Your task to perform on an android device: turn on bluetooth scan Image 0: 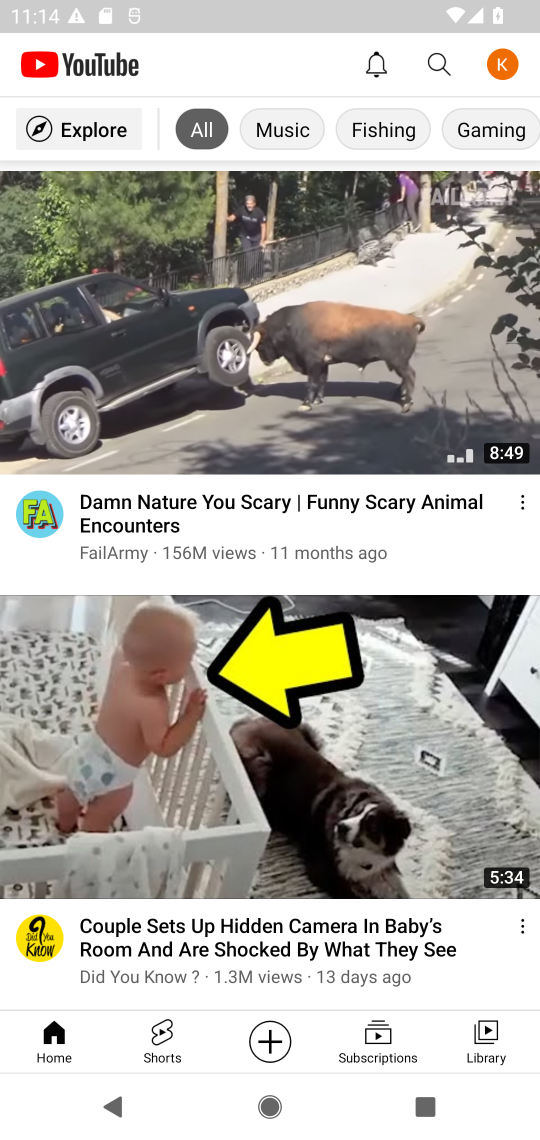
Step 0: press home button
Your task to perform on an android device: turn on bluetooth scan Image 1: 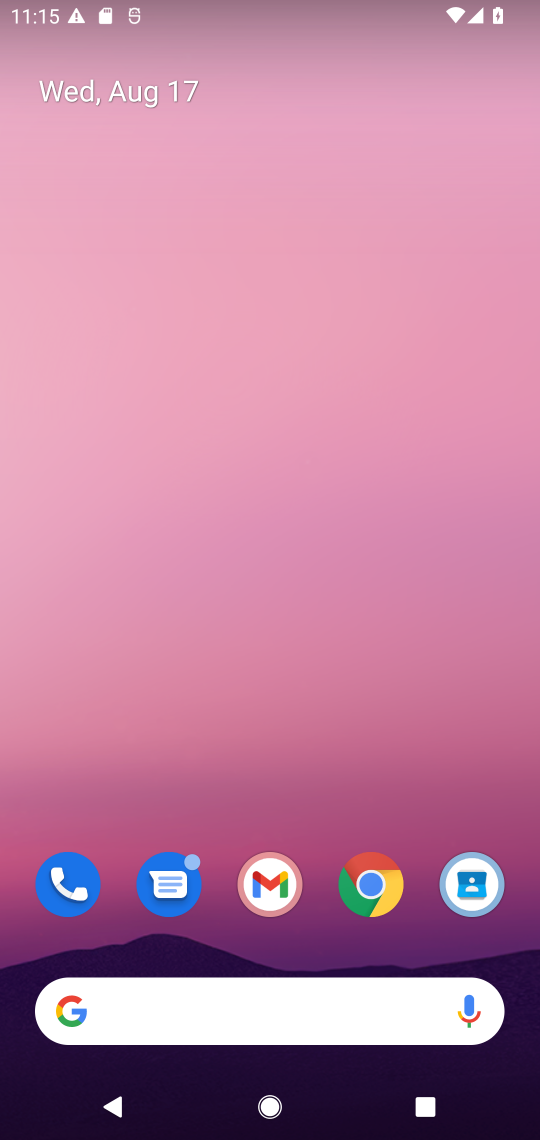
Step 1: drag from (318, 936) to (247, 155)
Your task to perform on an android device: turn on bluetooth scan Image 2: 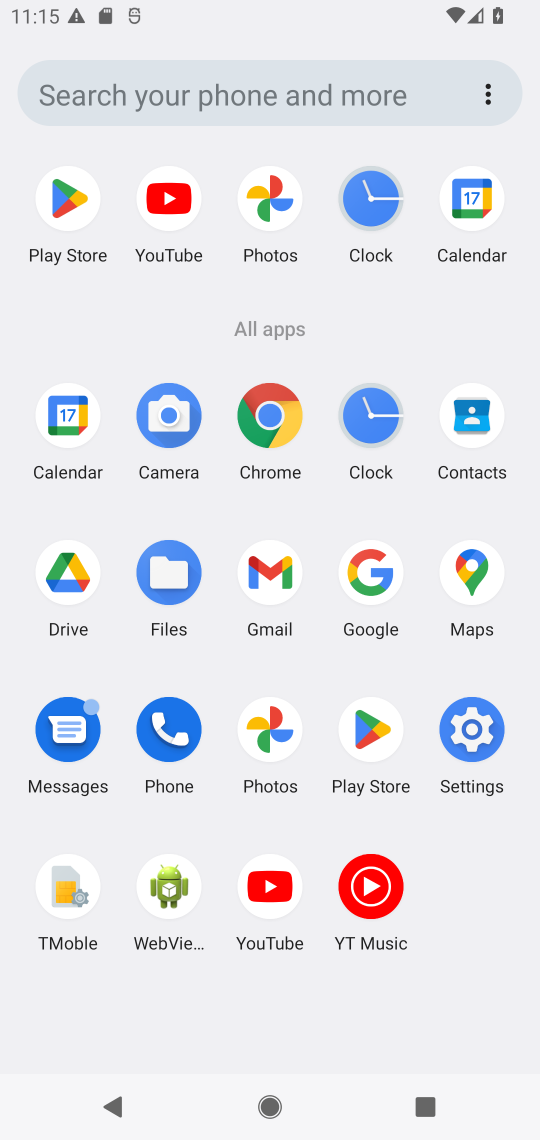
Step 2: click (470, 753)
Your task to perform on an android device: turn on bluetooth scan Image 3: 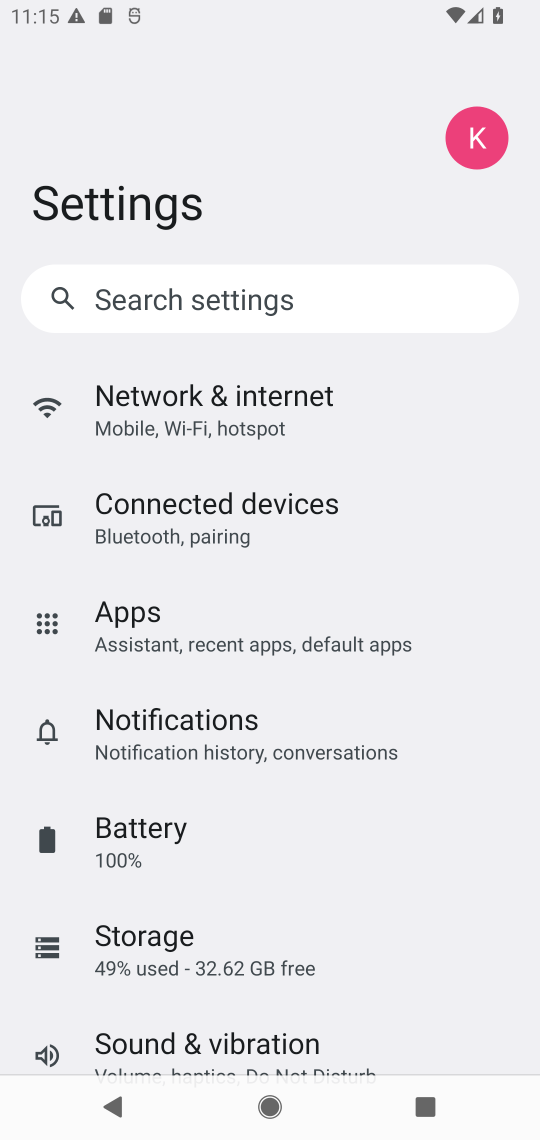
Step 3: drag from (366, 1012) to (233, 158)
Your task to perform on an android device: turn on bluetooth scan Image 4: 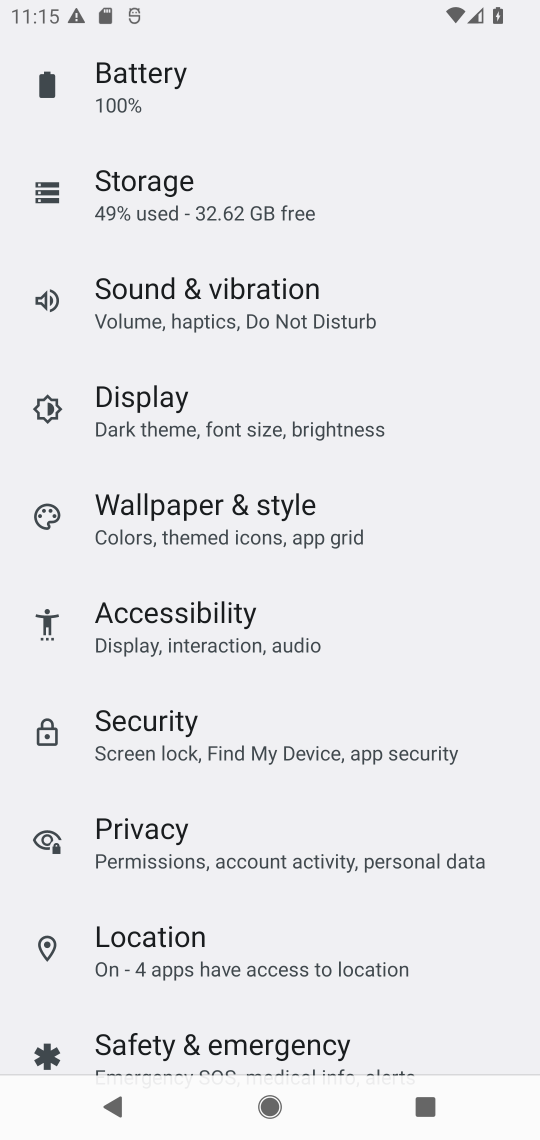
Step 4: click (220, 963)
Your task to perform on an android device: turn on bluetooth scan Image 5: 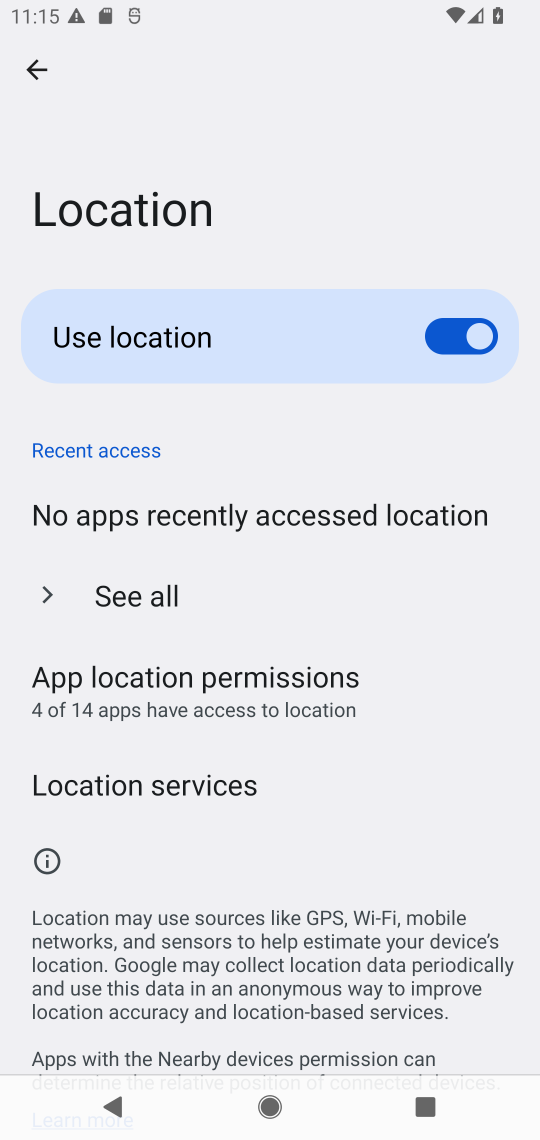
Step 5: click (178, 793)
Your task to perform on an android device: turn on bluetooth scan Image 6: 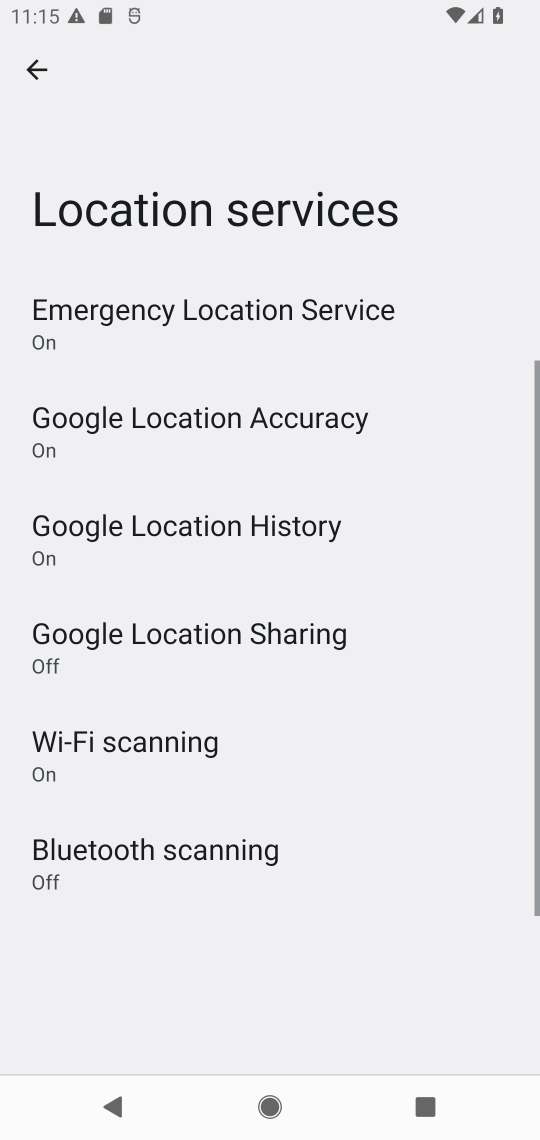
Step 6: click (236, 861)
Your task to perform on an android device: turn on bluetooth scan Image 7: 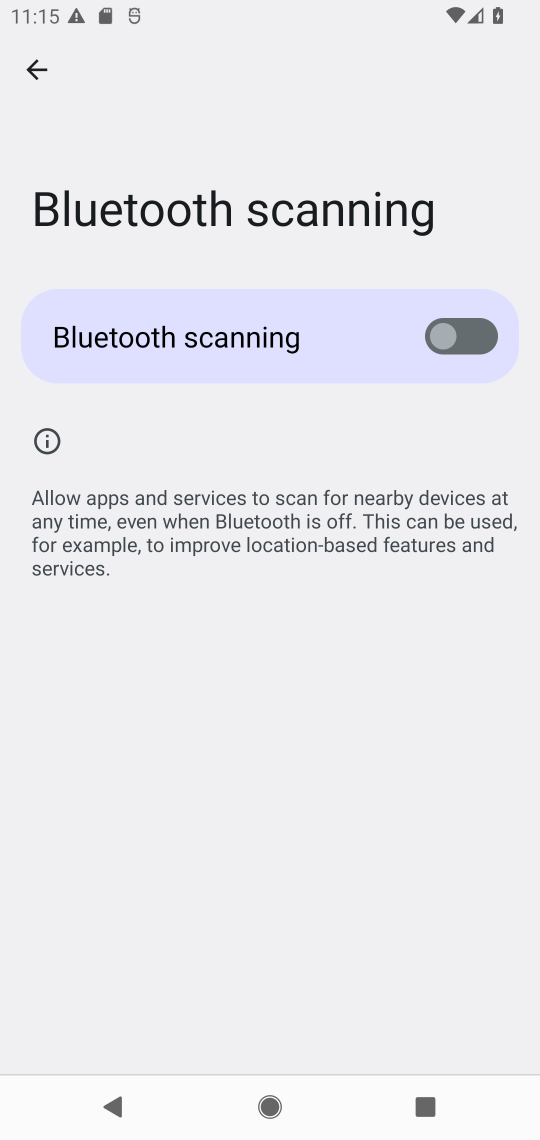
Step 7: click (438, 341)
Your task to perform on an android device: turn on bluetooth scan Image 8: 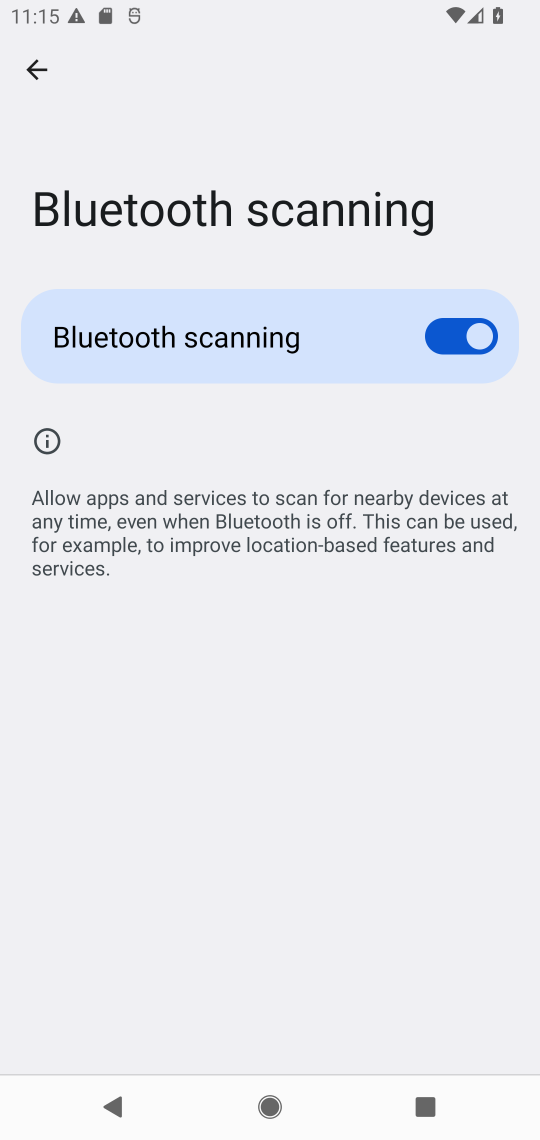
Step 8: task complete